Your task to perform on an android device: change the clock style Image 0: 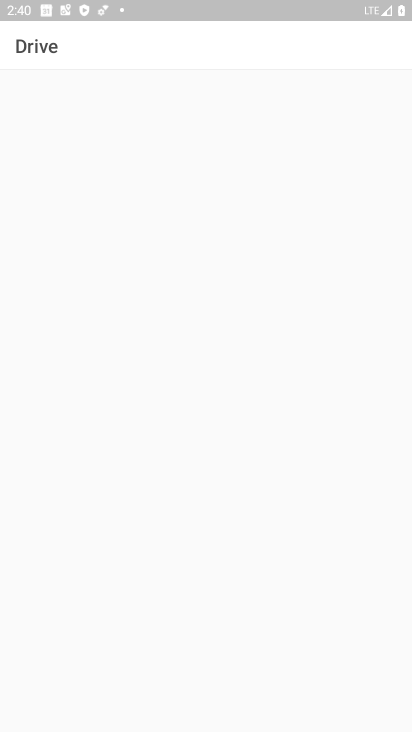
Step 0: press home button
Your task to perform on an android device: change the clock style Image 1: 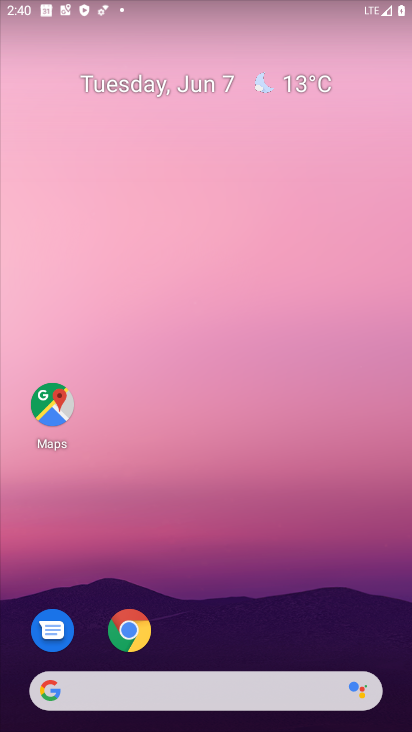
Step 1: drag from (224, 604) to (222, 110)
Your task to perform on an android device: change the clock style Image 2: 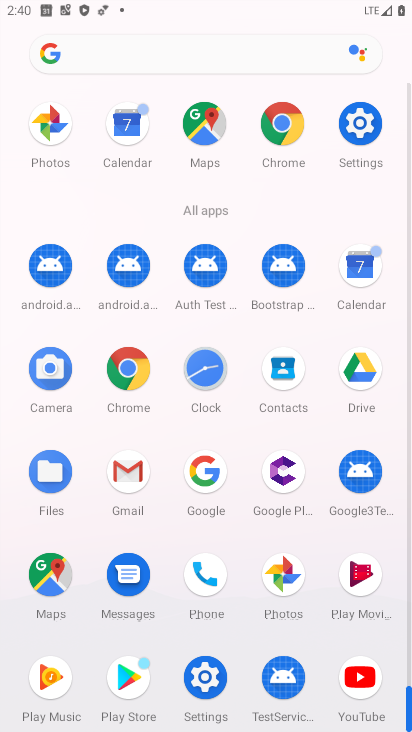
Step 2: click (216, 366)
Your task to perform on an android device: change the clock style Image 3: 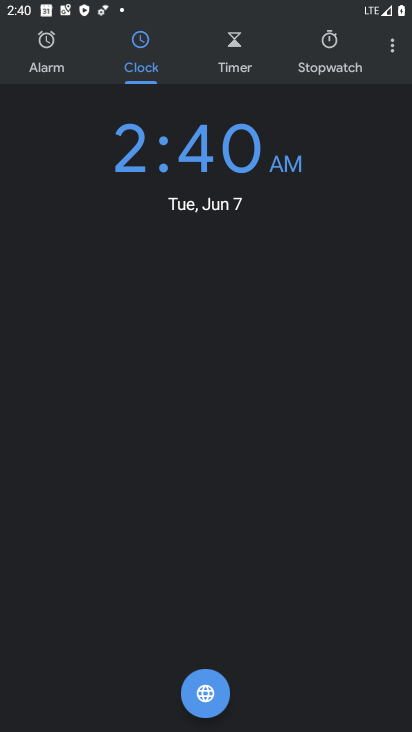
Step 3: click (386, 52)
Your task to perform on an android device: change the clock style Image 4: 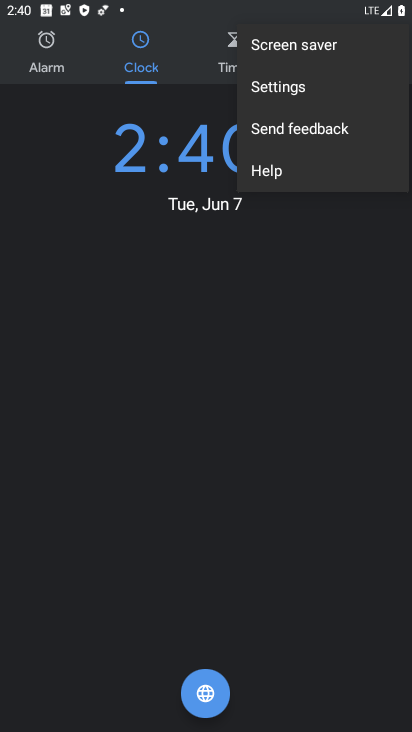
Step 4: click (256, 83)
Your task to perform on an android device: change the clock style Image 5: 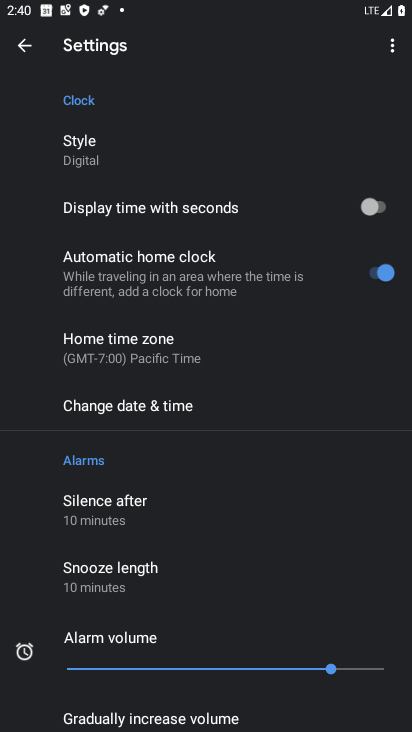
Step 5: click (67, 143)
Your task to perform on an android device: change the clock style Image 6: 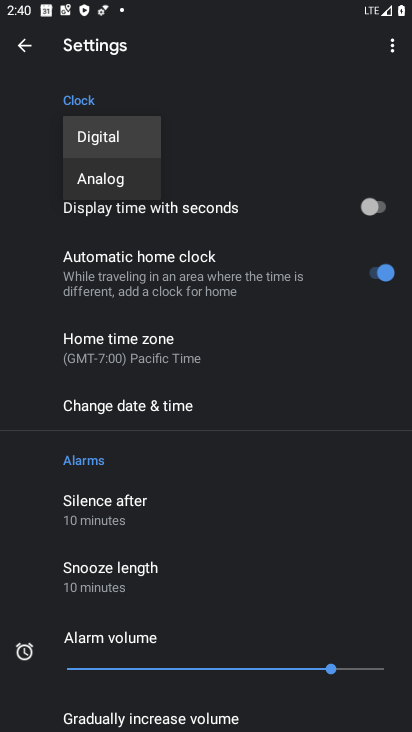
Step 6: click (85, 172)
Your task to perform on an android device: change the clock style Image 7: 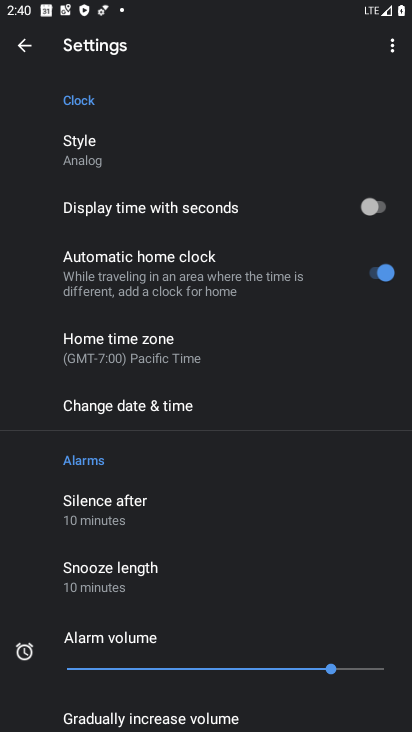
Step 7: task complete